Your task to perform on an android device: Play the last video I watched on Youtube Image 0: 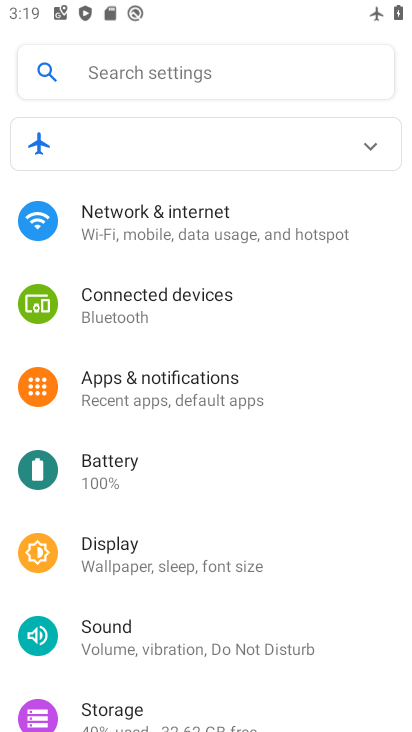
Step 0: press home button
Your task to perform on an android device: Play the last video I watched on Youtube Image 1: 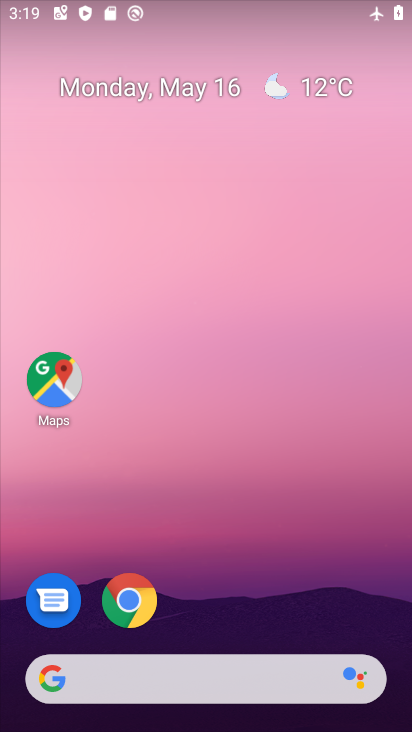
Step 1: drag from (227, 662) to (348, 31)
Your task to perform on an android device: Play the last video I watched on Youtube Image 2: 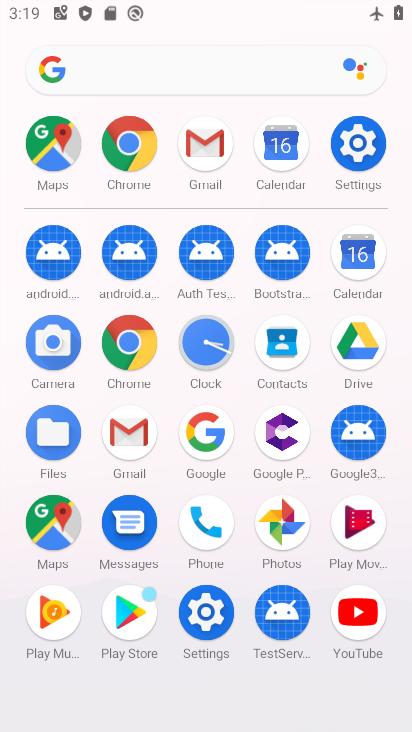
Step 2: click (362, 614)
Your task to perform on an android device: Play the last video I watched on Youtube Image 3: 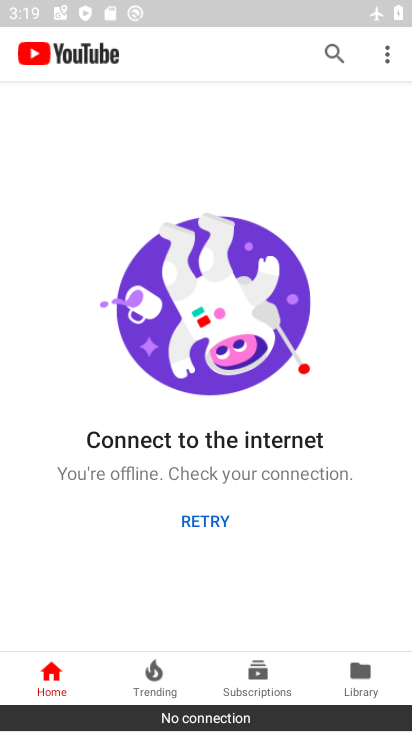
Step 3: click (349, 682)
Your task to perform on an android device: Play the last video I watched on Youtube Image 4: 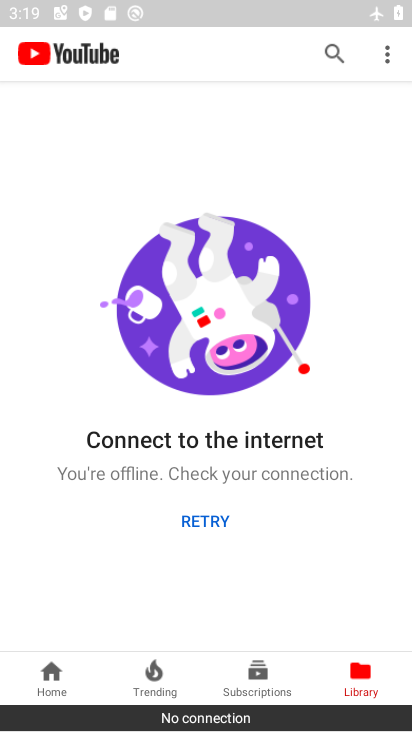
Step 4: task complete